Your task to perform on an android device: Open Android settings Image 0: 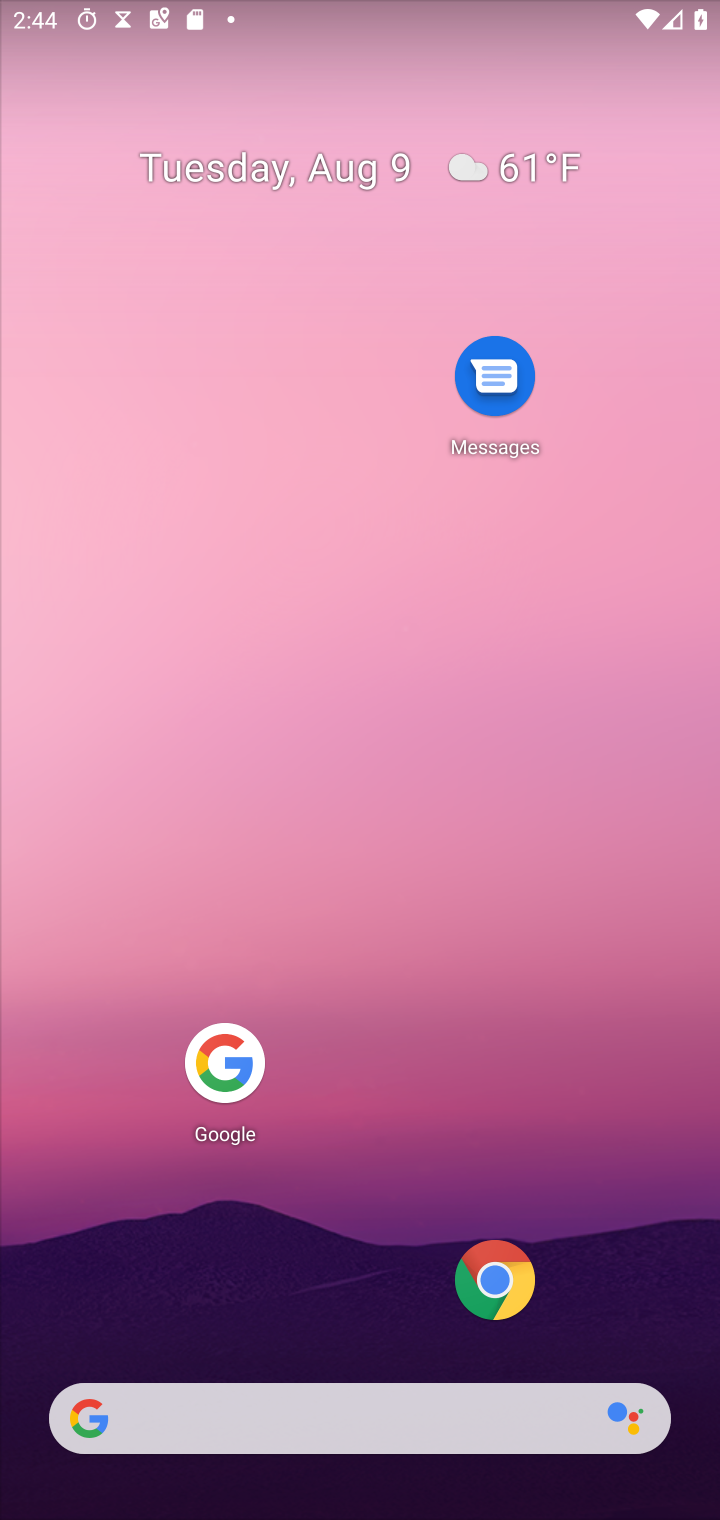
Step 0: drag from (317, 1425) to (456, 466)
Your task to perform on an android device: Open Android settings Image 1: 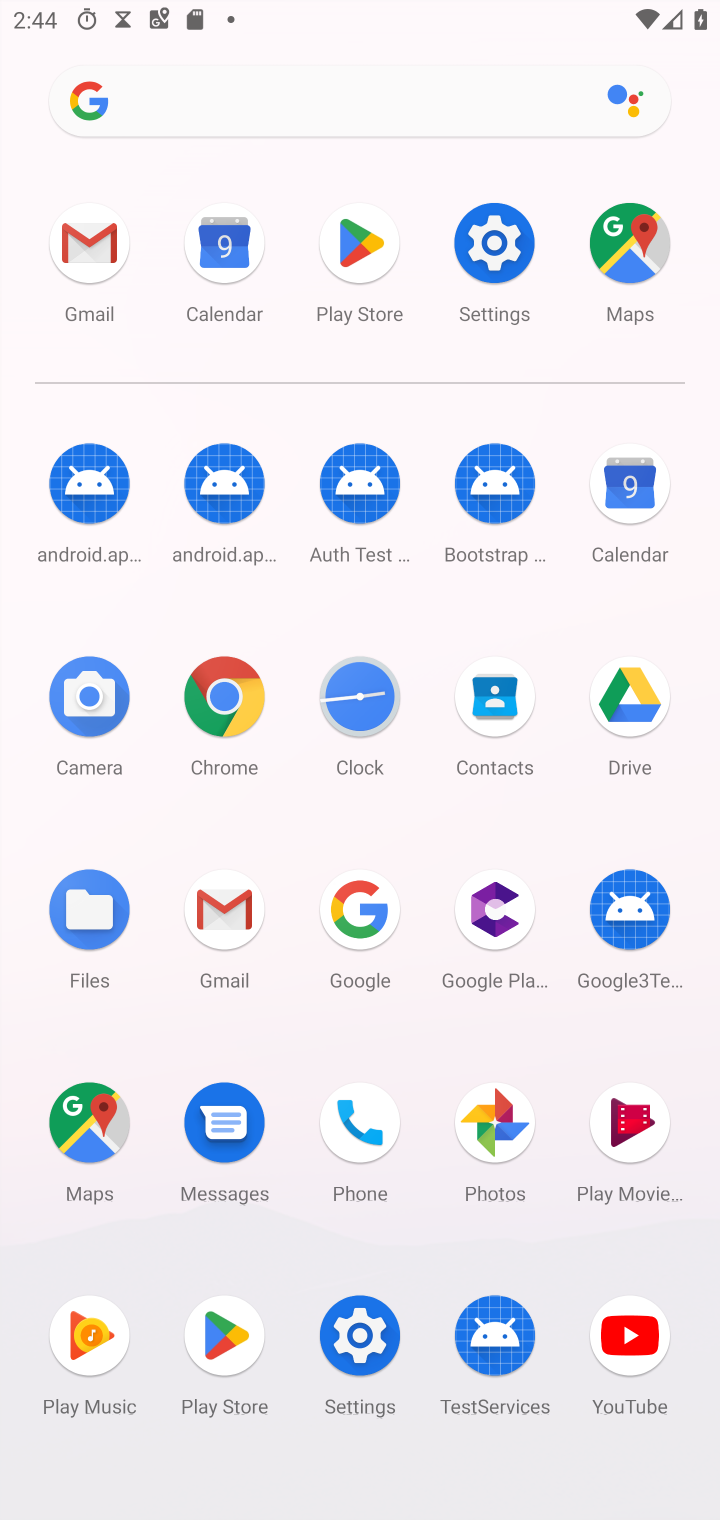
Step 1: click (486, 208)
Your task to perform on an android device: Open Android settings Image 2: 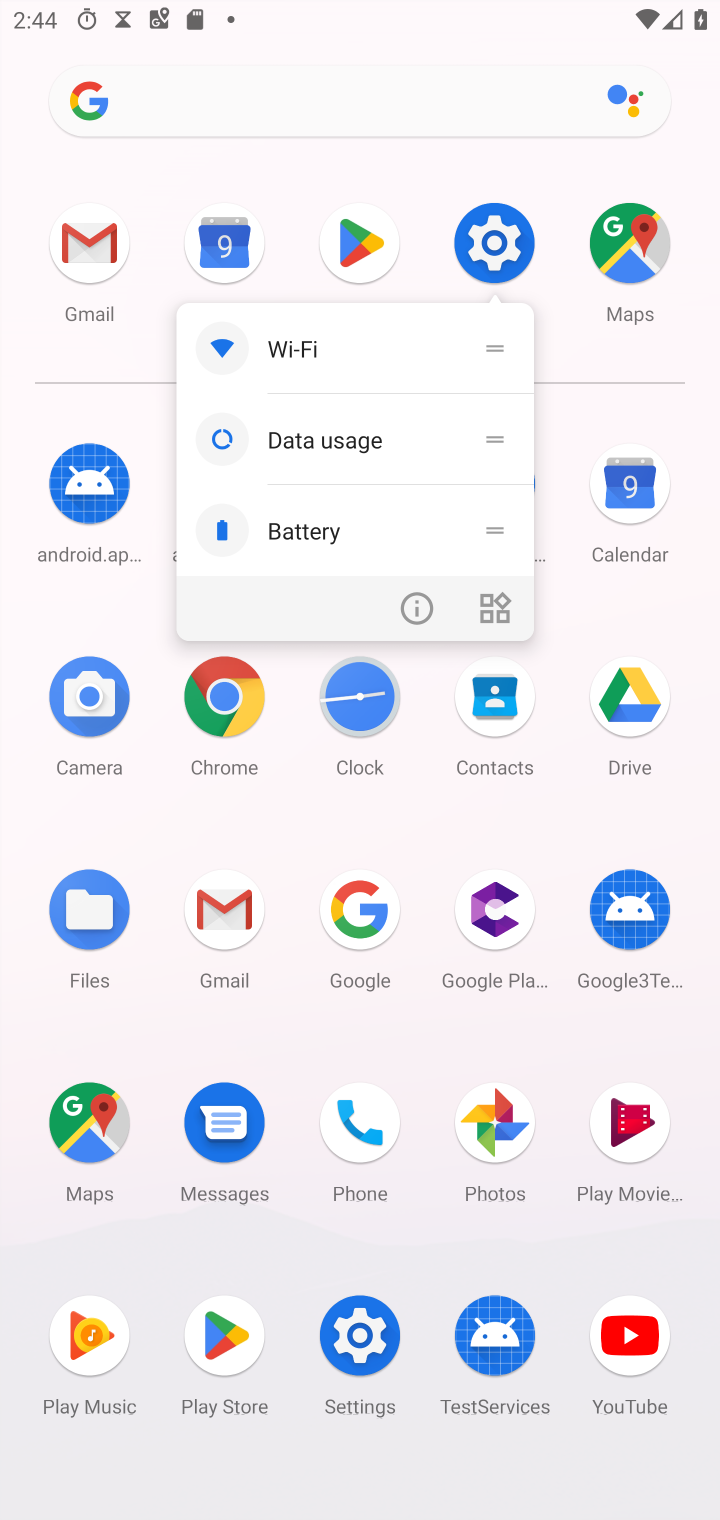
Step 2: click (486, 244)
Your task to perform on an android device: Open Android settings Image 3: 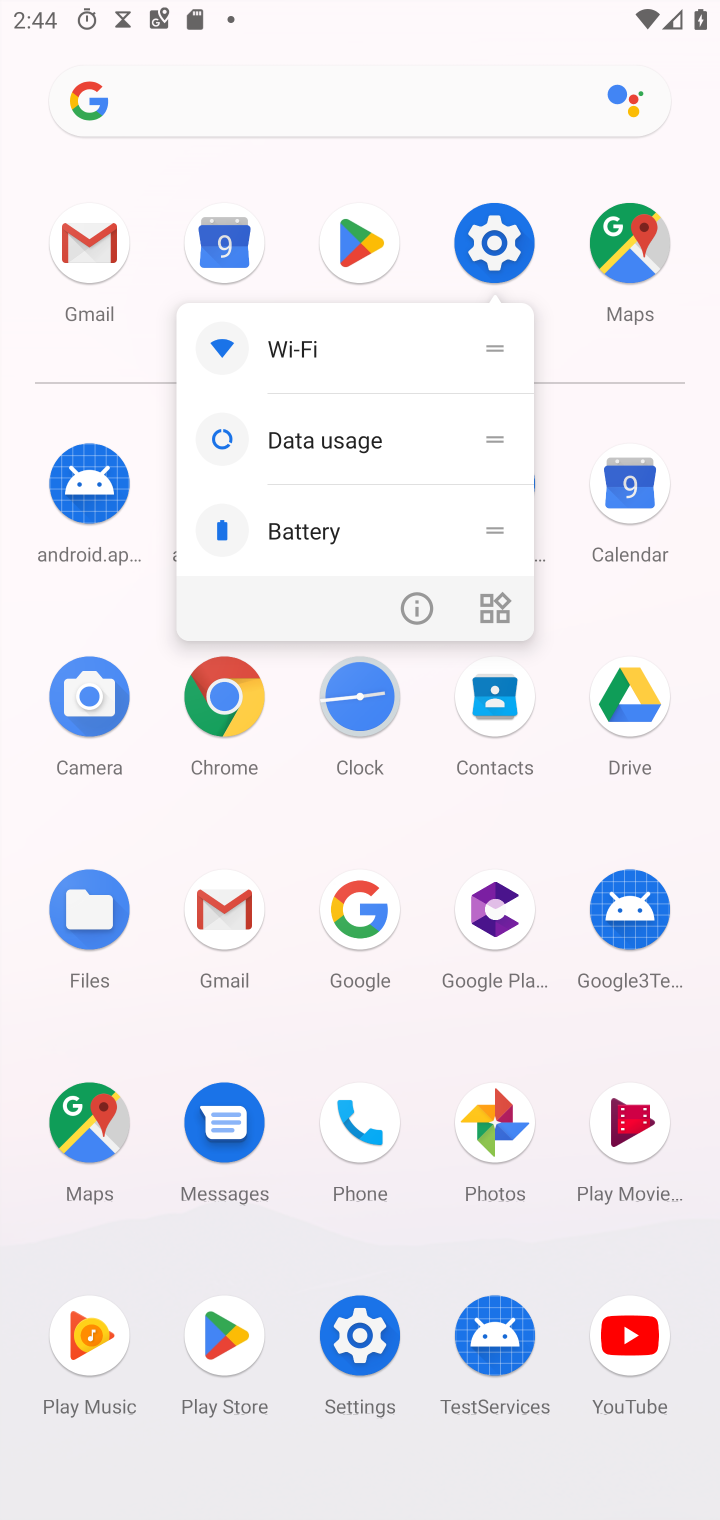
Step 3: click (486, 246)
Your task to perform on an android device: Open Android settings Image 4: 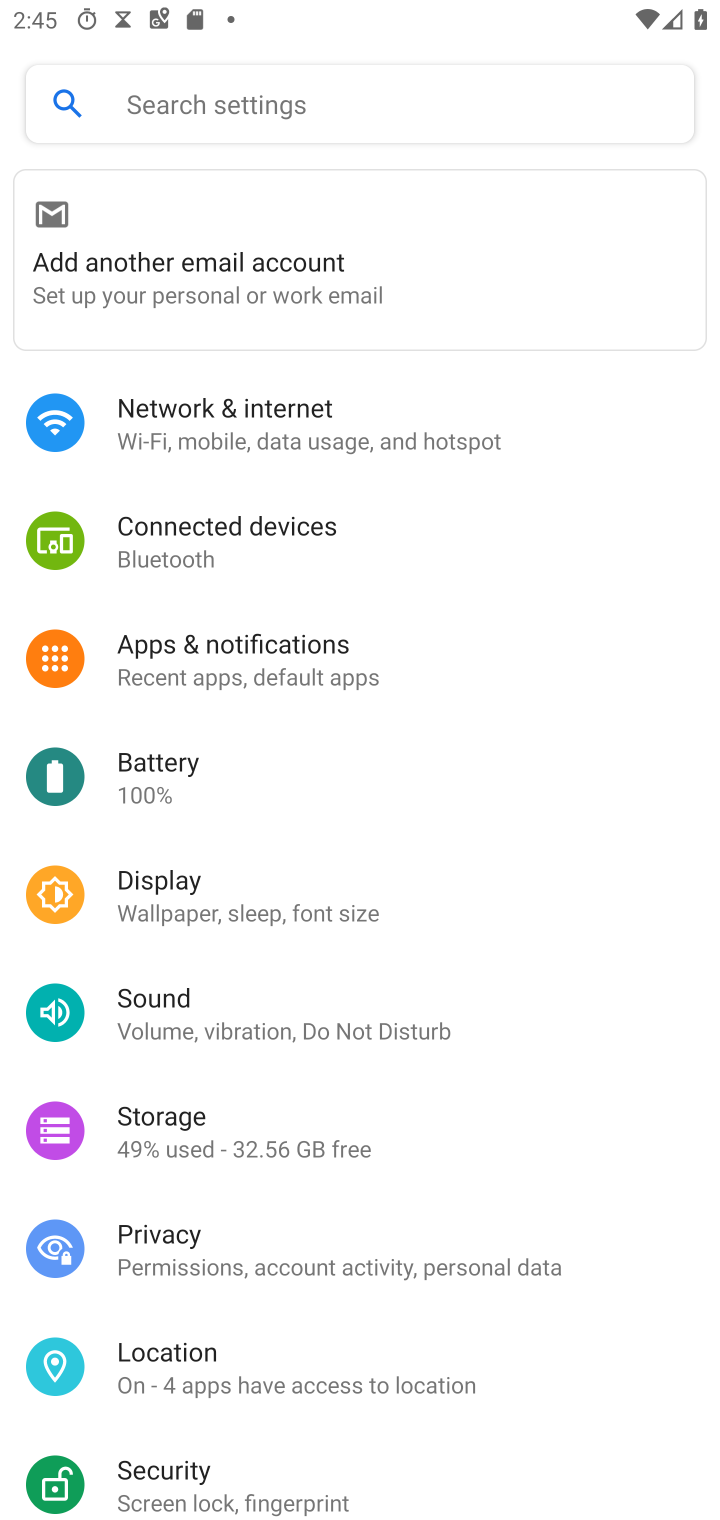
Step 4: task complete